Your task to perform on an android device: Go to Amazon Image 0: 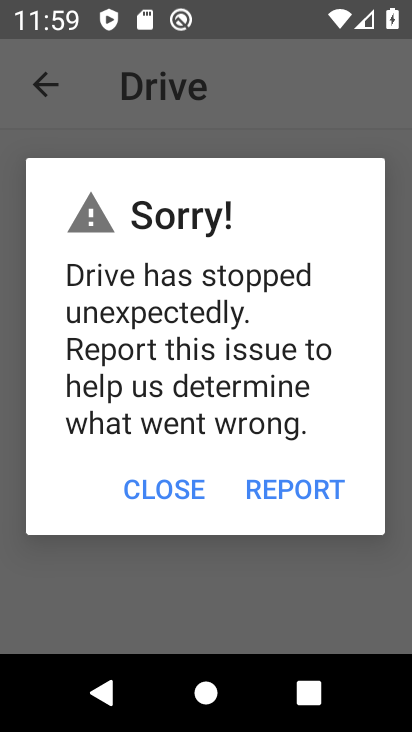
Step 0: press home button
Your task to perform on an android device: Go to Amazon Image 1: 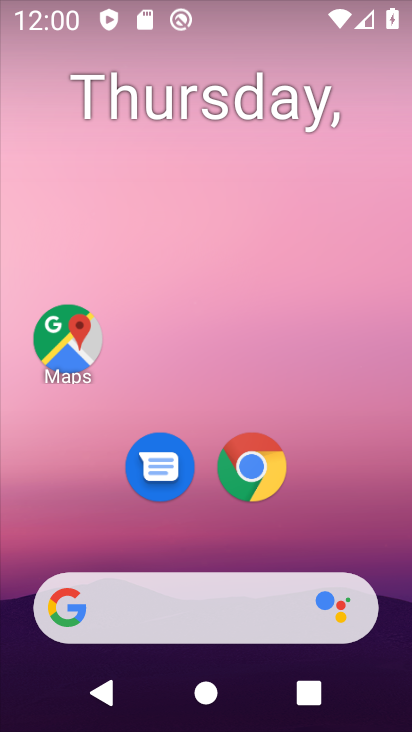
Step 1: click (249, 495)
Your task to perform on an android device: Go to Amazon Image 2: 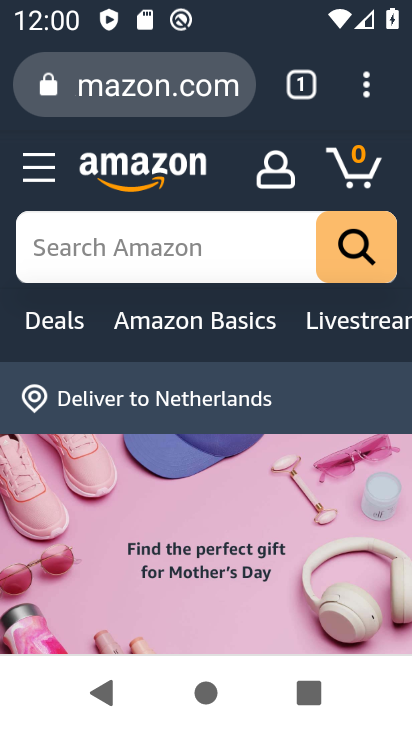
Step 2: task complete